Your task to perform on an android device: Is it going to rain today? Image 0: 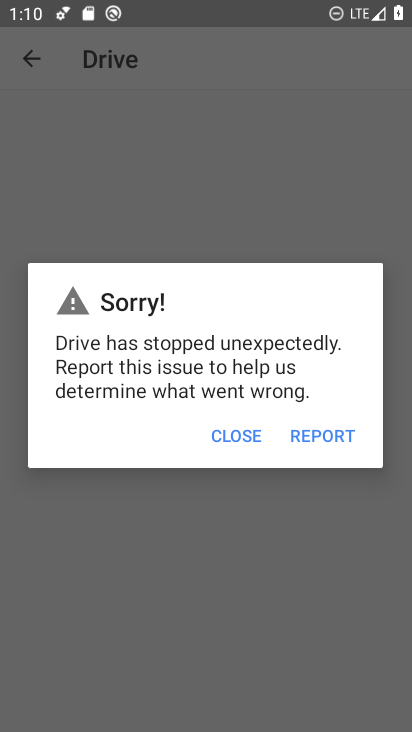
Step 0: press home button
Your task to perform on an android device: Is it going to rain today? Image 1: 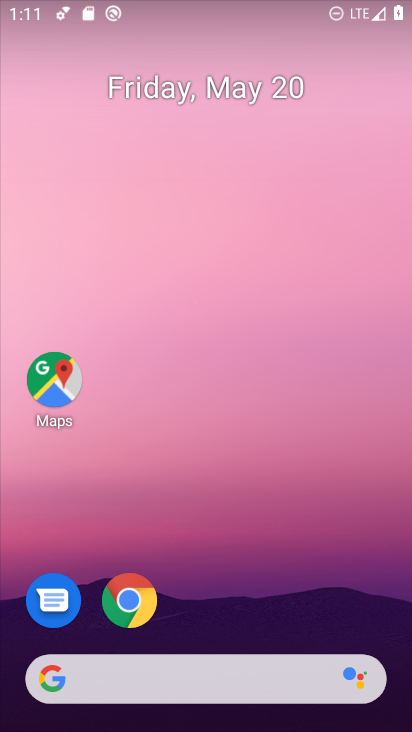
Step 1: drag from (37, 271) to (386, 303)
Your task to perform on an android device: Is it going to rain today? Image 2: 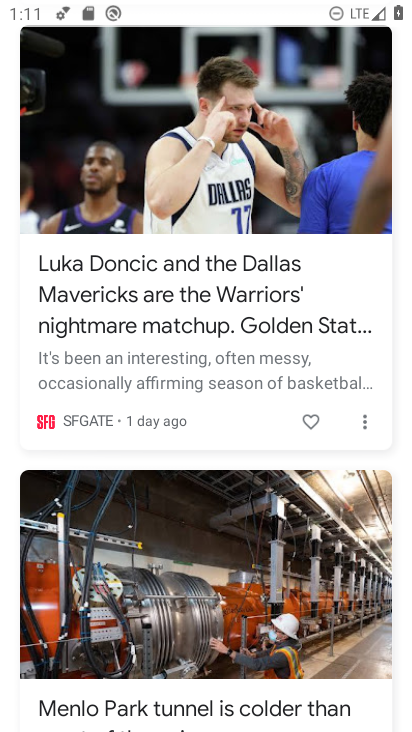
Step 2: drag from (91, 173) to (147, 659)
Your task to perform on an android device: Is it going to rain today? Image 3: 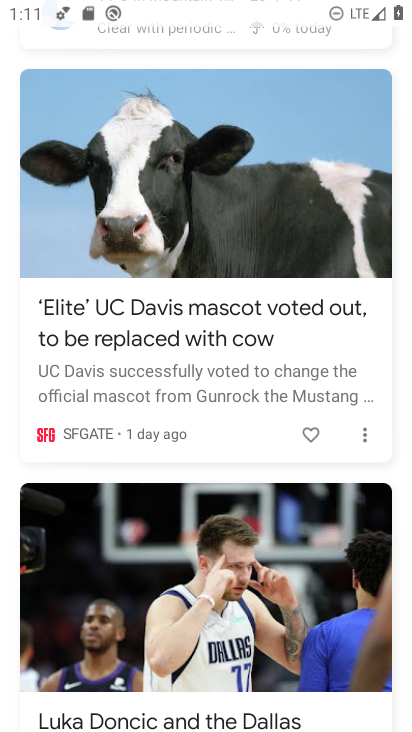
Step 3: drag from (150, 279) to (222, 658)
Your task to perform on an android device: Is it going to rain today? Image 4: 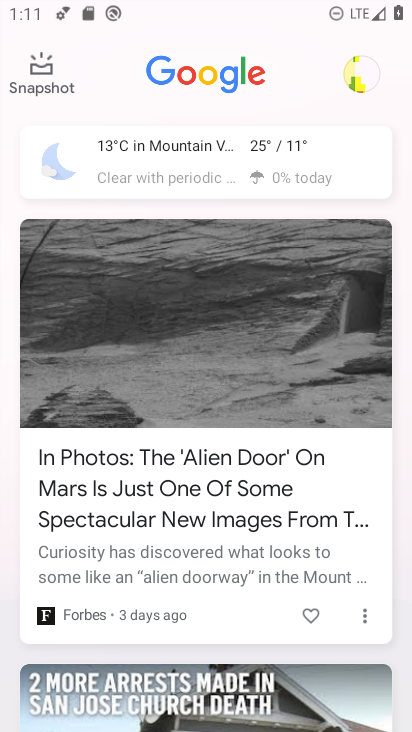
Step 4: click (62, 165)
Your task to perform on an android device: Is it going to rain today? Image 5: 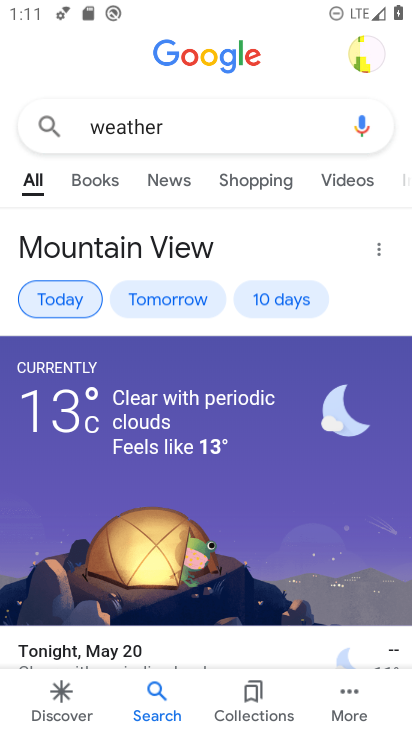
Step 5: task complete